Your task to perform on an android device: Open Google Chrome Image 0: 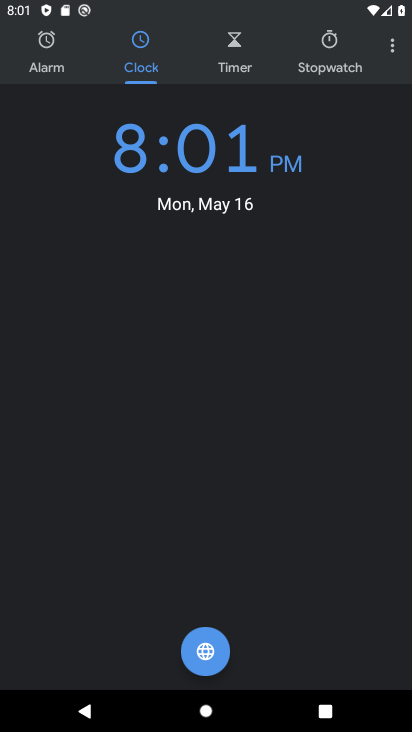
Step 0: press home button
Your task to perform on an android device: Open Google Chrome Image 1: 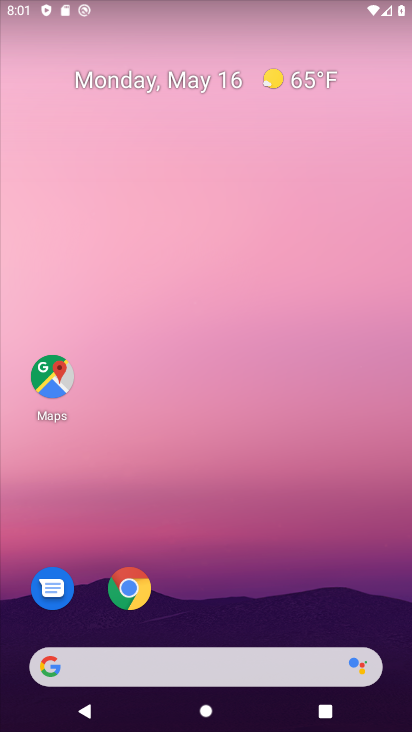
Step 1: click (124, 582)
Your task to perform on an android device: Open Google Chrome Image 2: 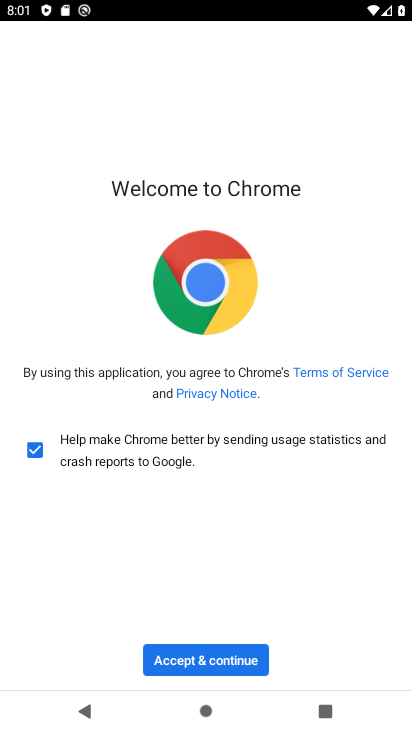
Step 2: click (181, 660)
Your task to perform on an android device: Open Google Chrome Image 3: 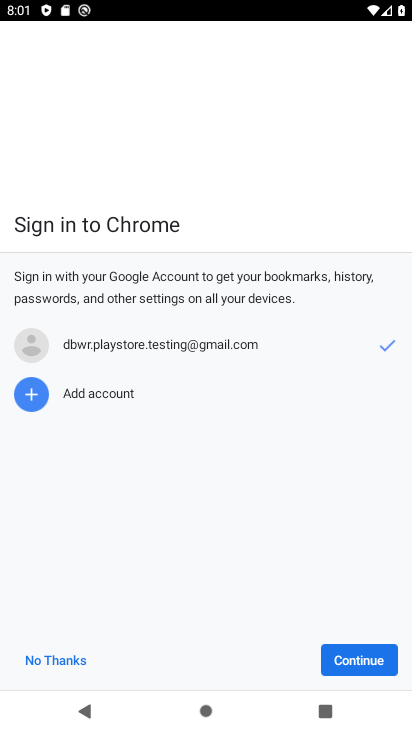
Step 3: click (382, 658)
Your task to perform on an android device: Open Google Chrome Image 4: 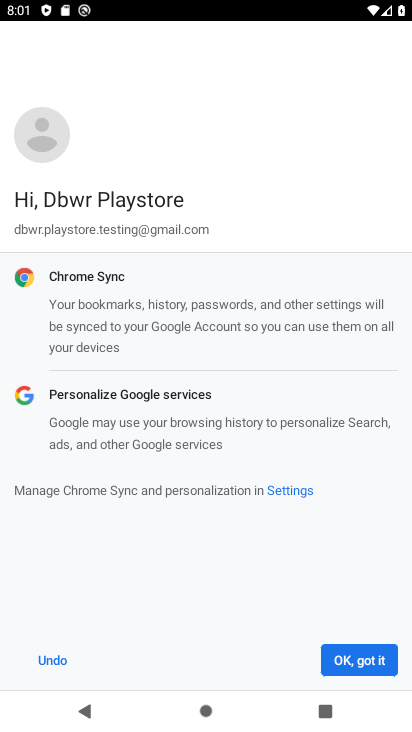
Step 4: click (383, 655)
Your task to perform on an android device: Open Google Chrome Image 5: 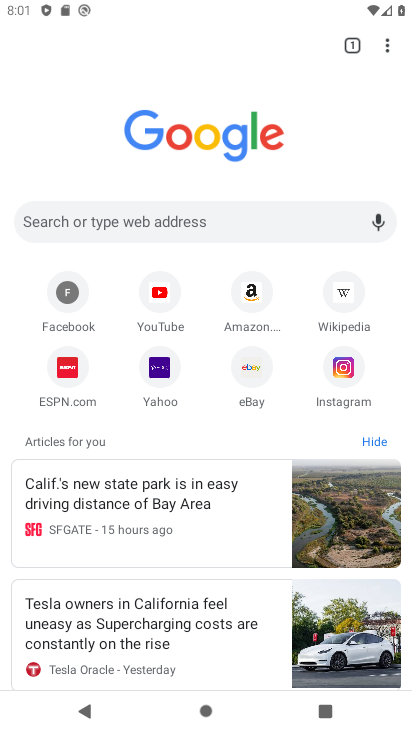
Step 5: task complete